Your task to perform on an android device: change alarm snooze length Image 0: 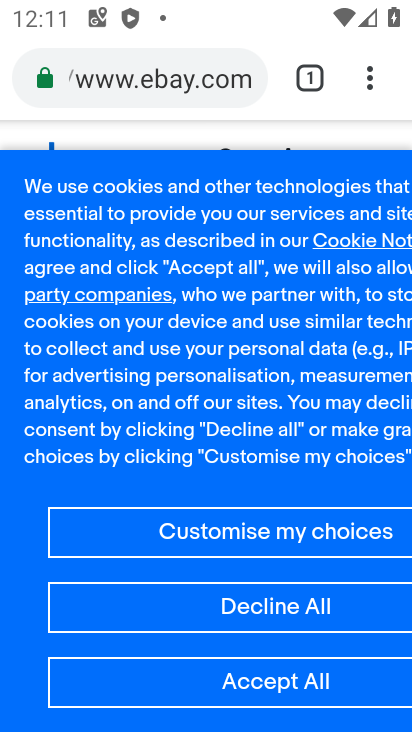
Step 0: press back button
Your task to perform on an android device: change alarm snooze length Image 1: 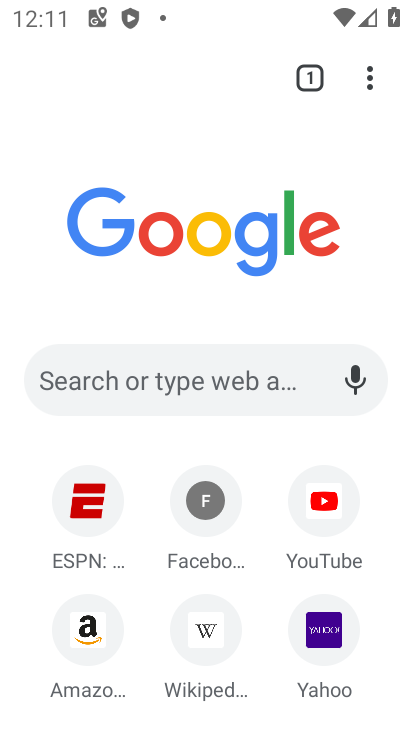
Step 1: press back button
Your task to perform on an android device: change alarm snooze length Image 2: 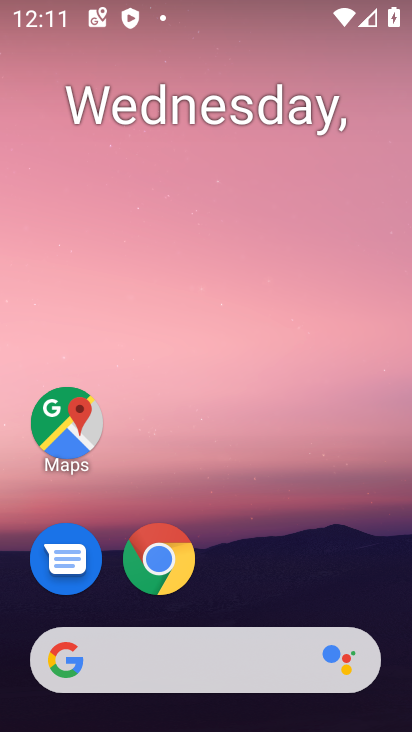
Step 2: drag from (304, 565) to (318, 93)
Your task to perform on an android device: change alarm snooze length Image 3: 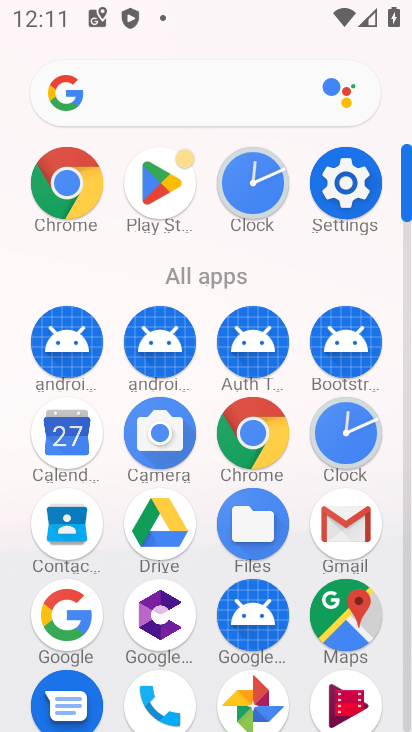
Step 3: click (249, 175)
Your task to perform on an android device: change alarm snooze length Image 4: 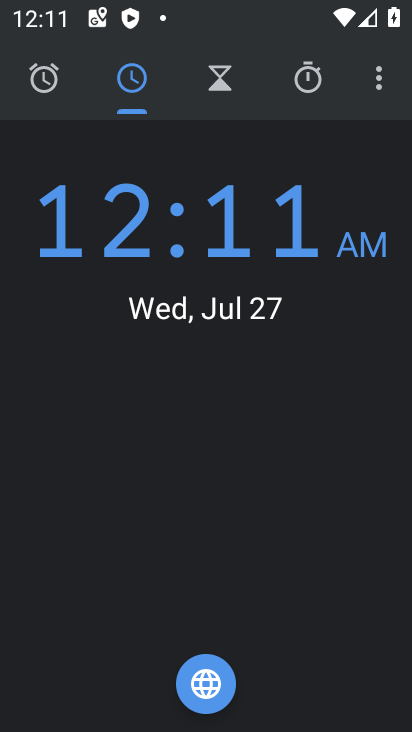
Step 4: click (381, 72)
Your task to perform on an android device: change alarm snooze length Image 5: 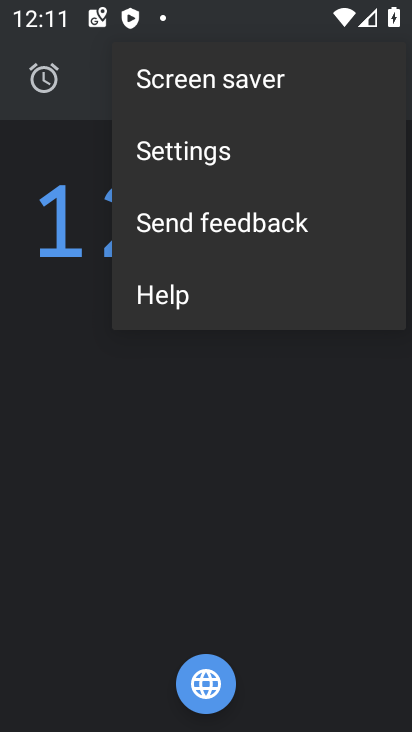
Step 5: click (190, 164)
Your task to perform on an android device: change alarm snooze length Image 6: 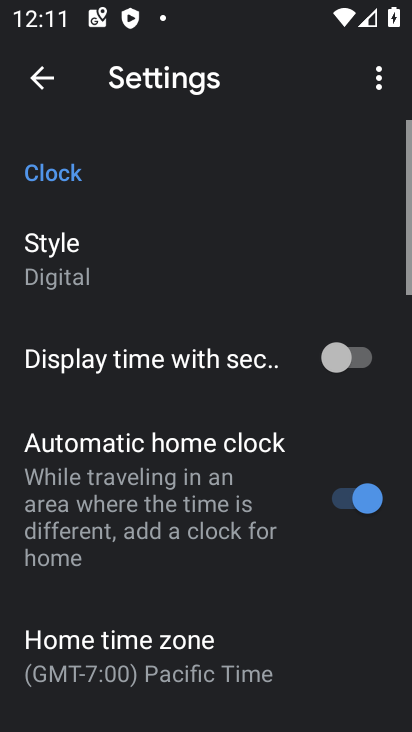
Step 6: drag from (127, 632) to (196, 75)
Your task to perform on an android device: change alarm snooze length Image 7: 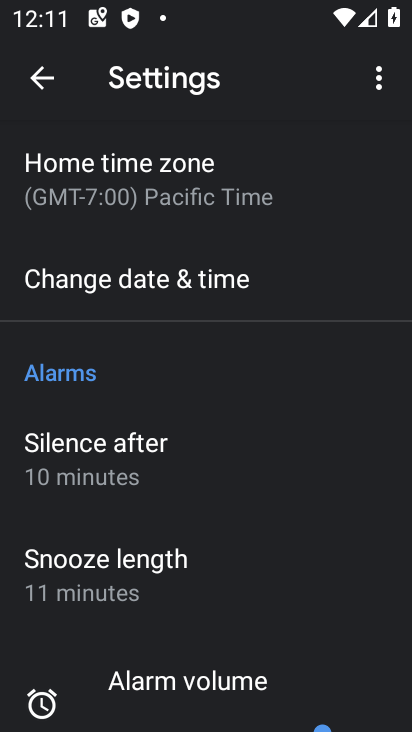
Step 7: click (92, 559)
Your task to perform on an android device: change alarm snooze length Image 8: 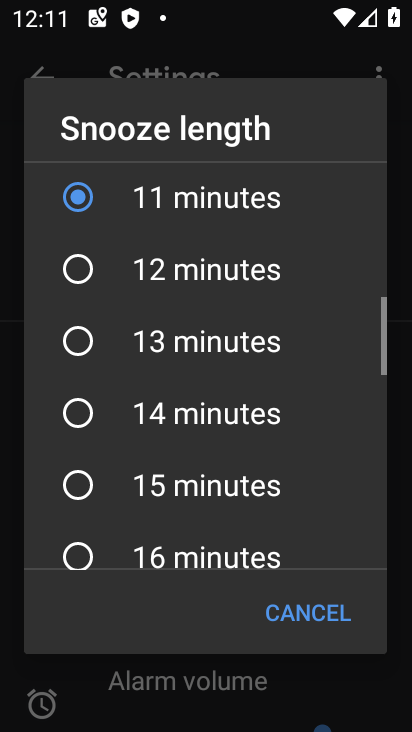
Step 8: click (78, 268)
Your task to perform on an android device: change alarm snooze length Image 9: 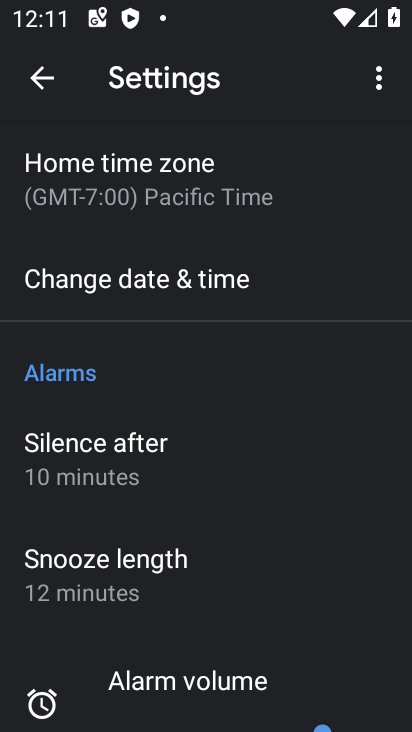
Step 9: task complete